Your task to perform on an android device: open device folders in google photos Image 0: 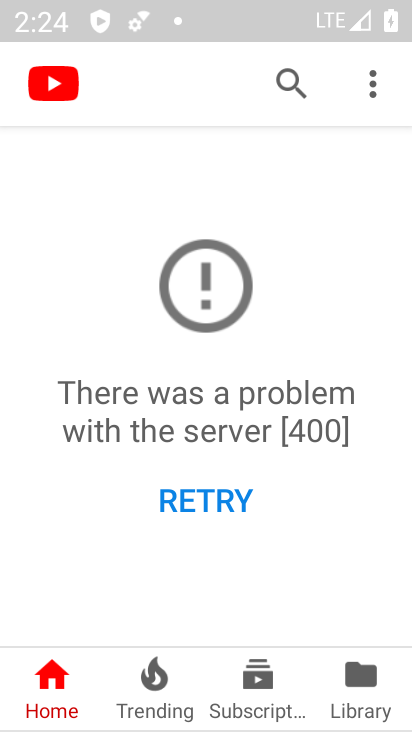
Step 0: press home button
Your task to perform on an android device: open device folders in google photos Image 1: 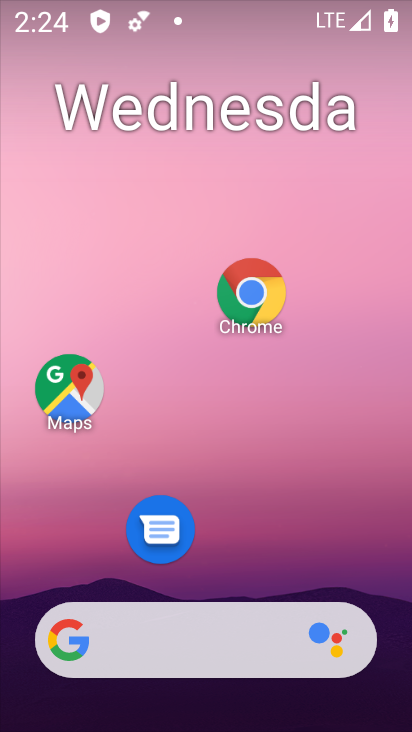
Step 1: drag from (269, 595) to (330, 27)
Your task to perform on an android device: open device folders in google photos Image 2: 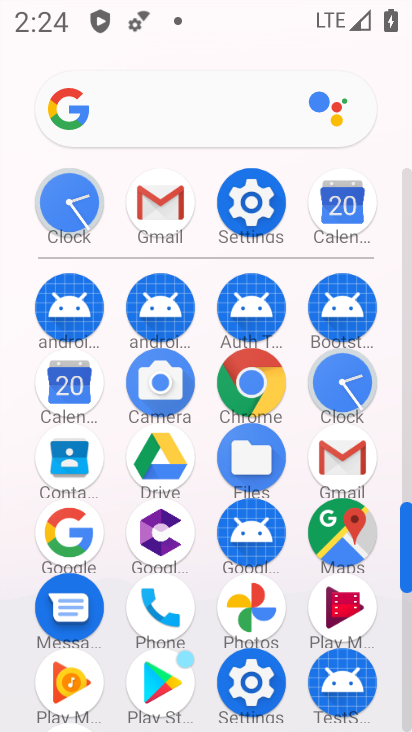
Step 2: click (266, 606)
Your task to perform on an android device: open device folders in google photos Image 3: 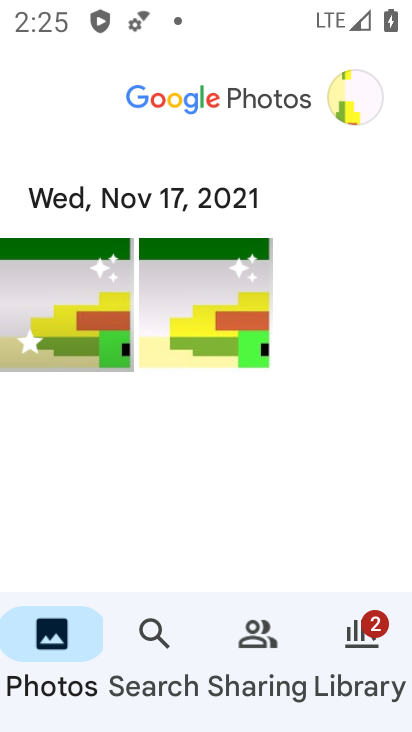
Step 3: click (379, 118)
Your task to perform on an android device: open device folders in google photos Image 4: 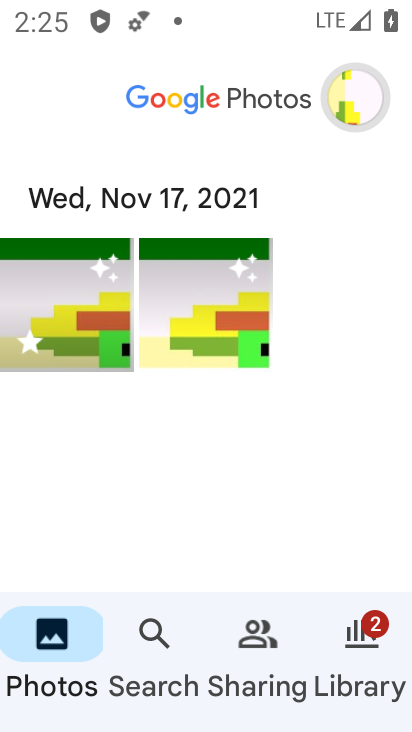
Step 4: task complete